Your task to perform on an android device: Open Chrome and go to settings Image 0: 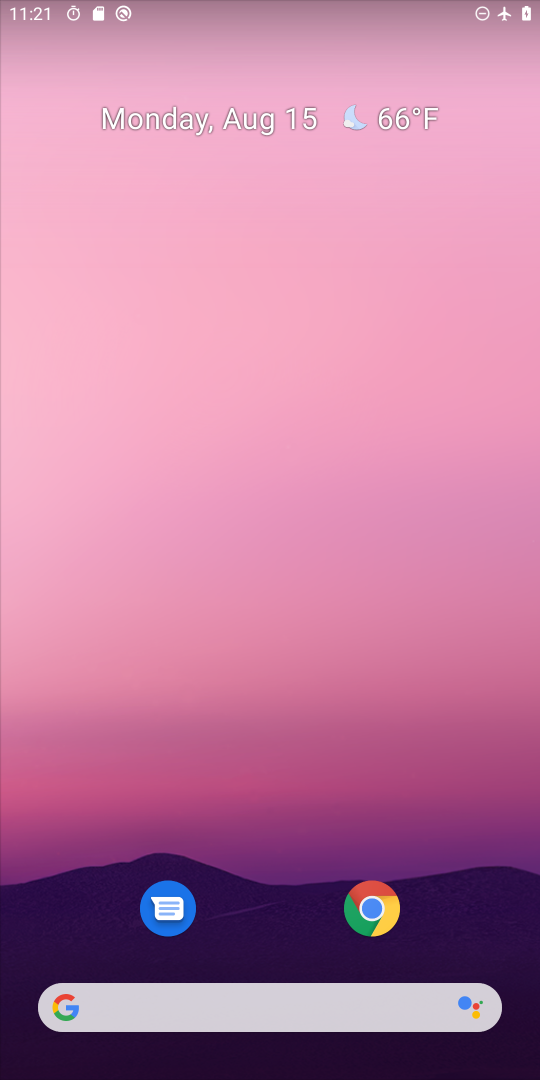
Step 0: click (365, 918)
Your task to perform on an android device: Open Chrome and go to settings Image 1: 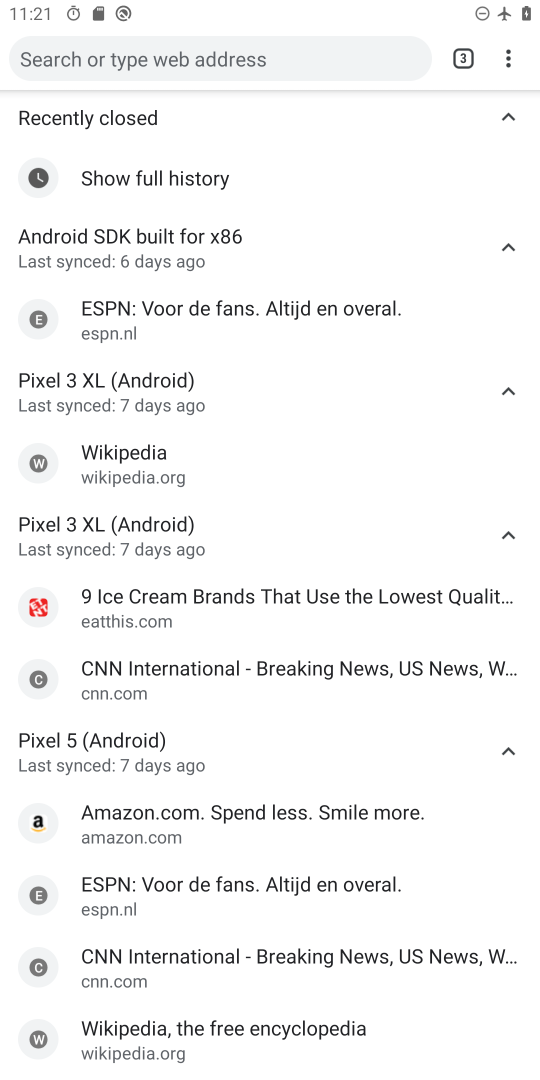
Step 1: click (519, 57)
Your task to perform on an android device: Open Chrome and go to settings Image 2: 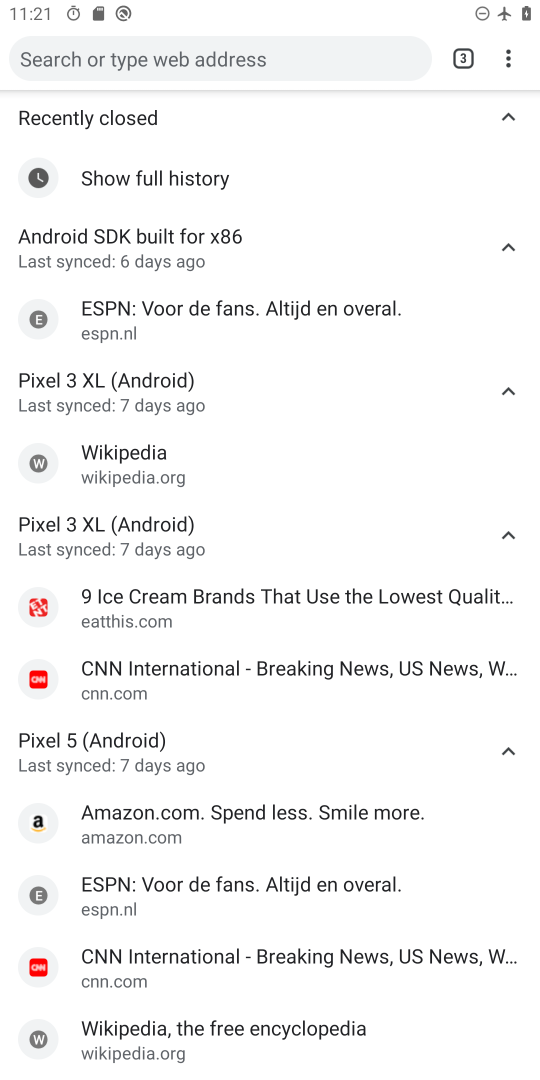
Step 2: click (519, 50)
Your task to perform on an android device: Open Chrome and go to settings Image 3: 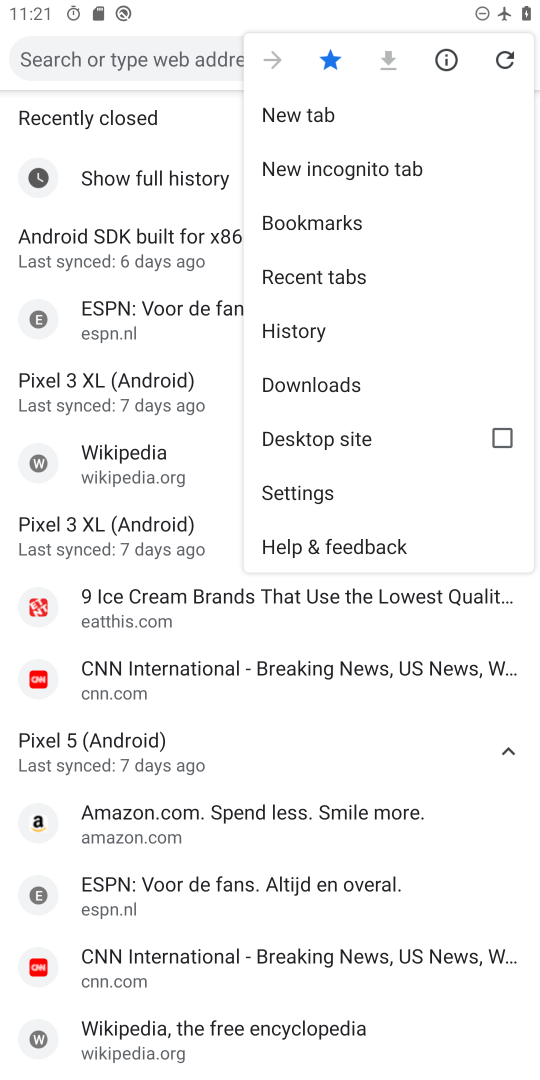
Step 3: click (319, 501)
Your task to perform on an android device: Open Chrome and go to settings Image 4: 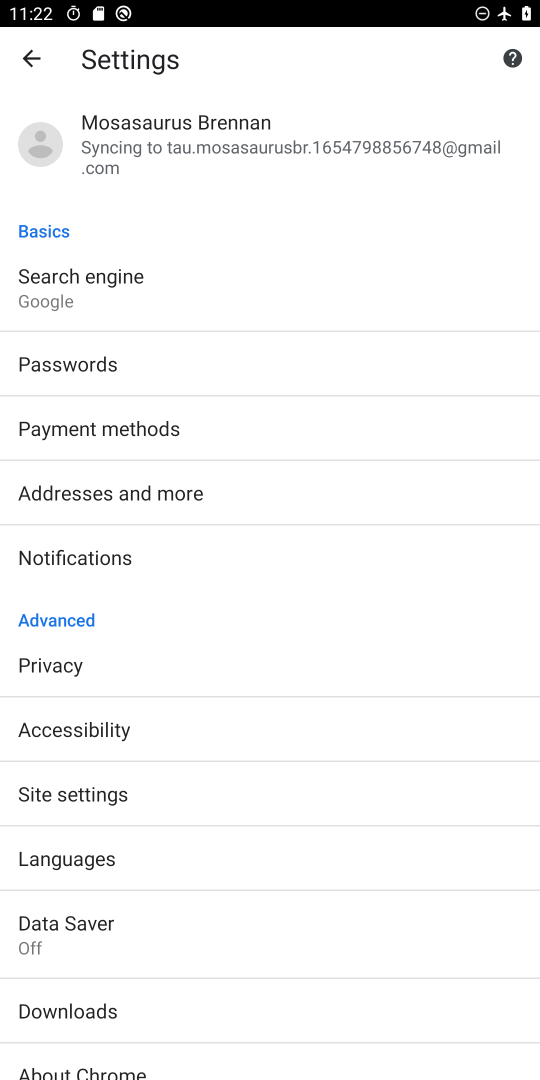
Step 4: task complete